Your task to perform on an android device: Do I have any events tomorrow? Image 0: 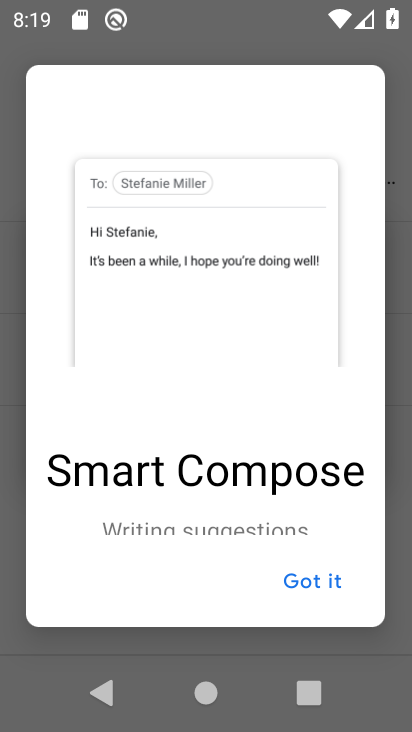
Step 0: press home button
Your task to perform on an android device: Do I have any events tomorrow? Image 1: 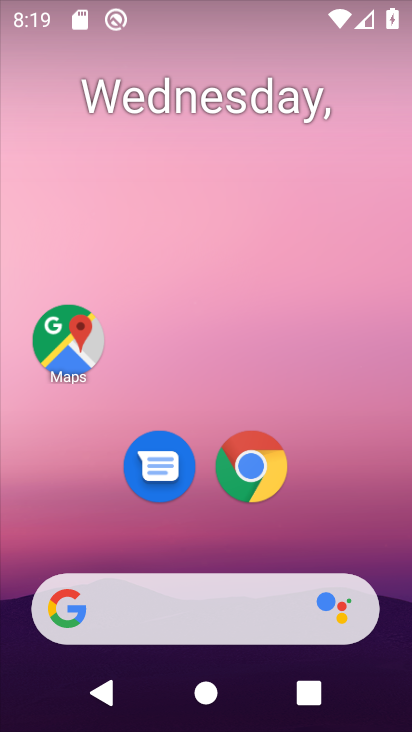
Step 1: drag from (237, 721) to (221, 72)
Your task to perform on an android device: Do I have any events tomorrow? Image 2: 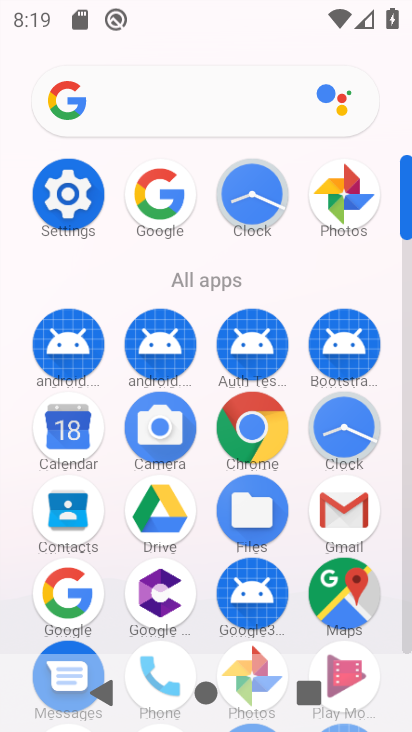
Step 2: click (51, 427)
Your task to perform on an android device: Do I have any events tomorrow? Image 3: 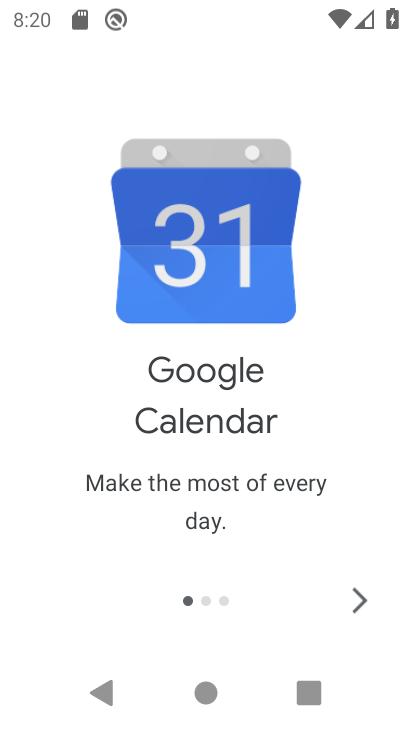
Step 3: click (364, 596)
Your task to perform on an android device: Do I have any events tomorrow? Image 4: 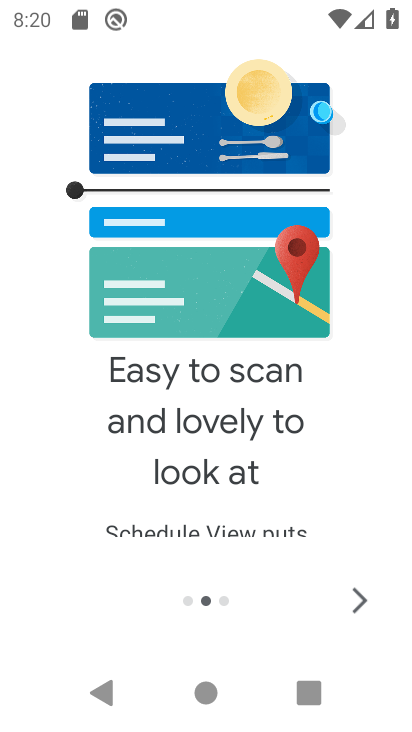
Step 4: click (360, 595)
Your task to perform on an android device: Do I have any events tomorrow? Image 5: 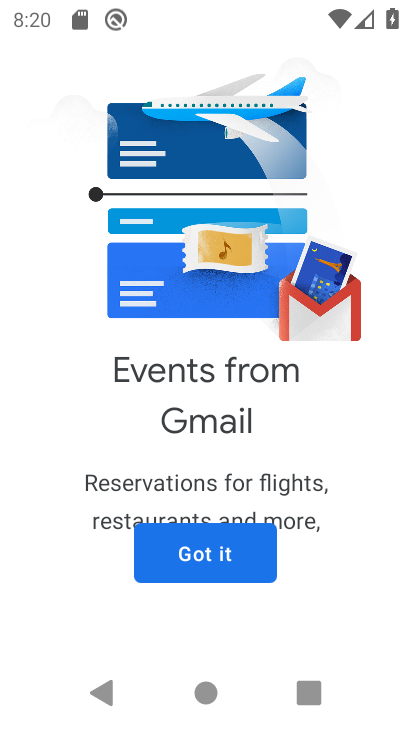
Step 5: click (235, 547)
Your task to perform on an android device: Do I have any events tomorrow? Image 6: 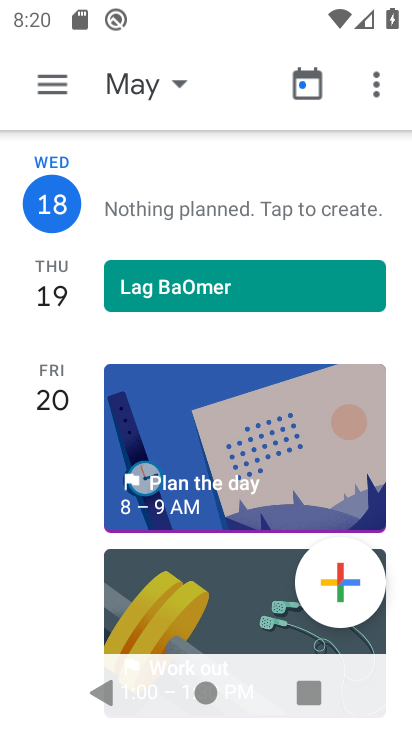
Step 6: click (62, 82)
Your task to perform on an android device: Do I have any events tomorrow? Image 7: 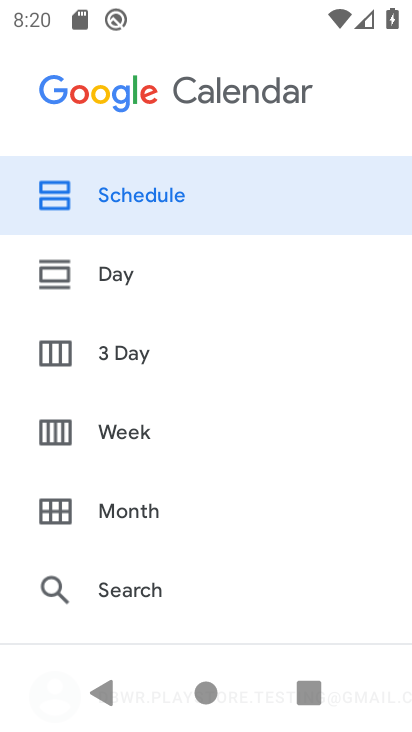
Step 7: drag from (109, 584) to (111, 218)
Your task to perform on an android device: Do I have any events tomorrow? Image 8: 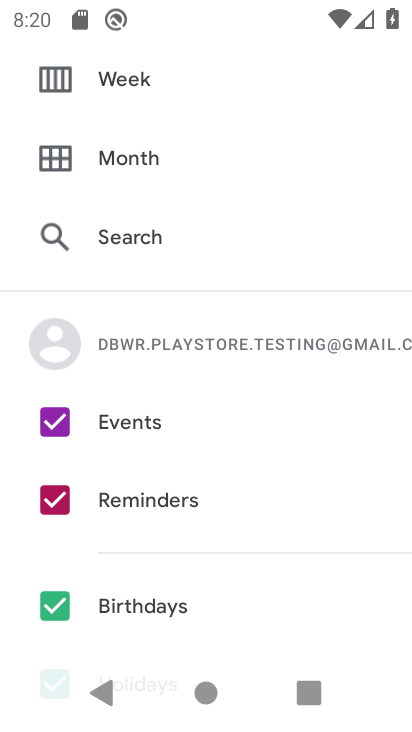
Step 8: drag from (115, 586) to (117, 282)
Your task to perform on an android device: Do I have any events tomorrow? Image 9: 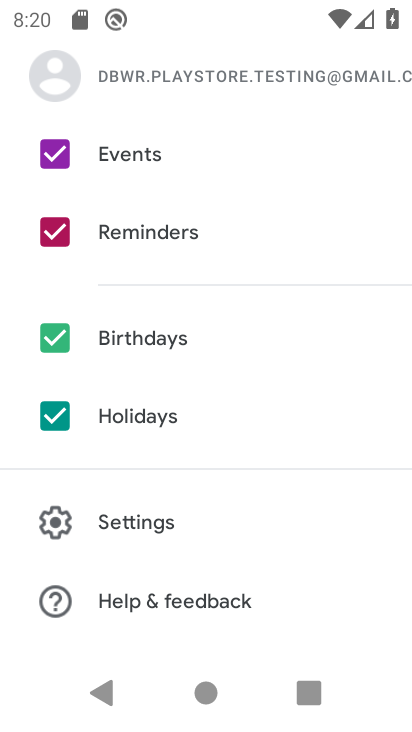
Step 9: click (55, 418)
Your task to perform on an android device: Do I have any events tomorrow? Image 10: 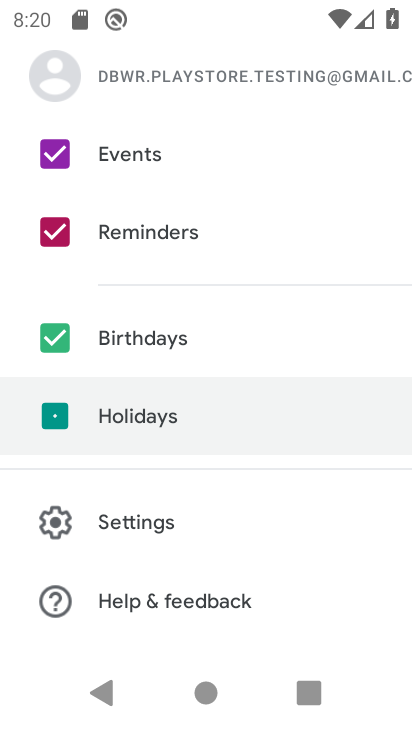
Step 10: click (56, 332)
Your task to perform on an android device: Do I have any events tomorrow? Image 11: 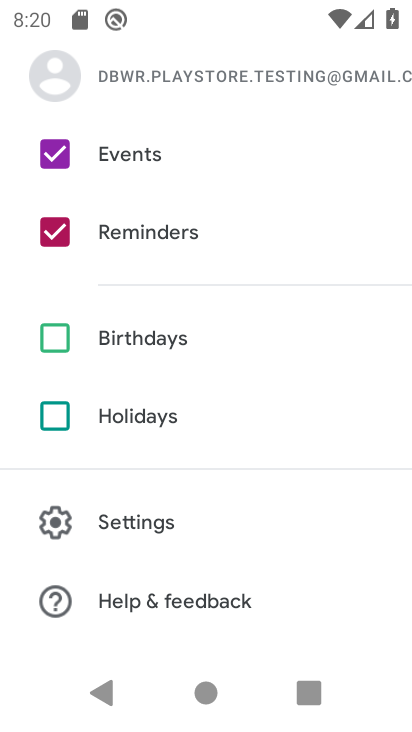
Step 11: click (55, 233)
Your task to perform on an android device: Do I have any events tomorrow? Image 12: 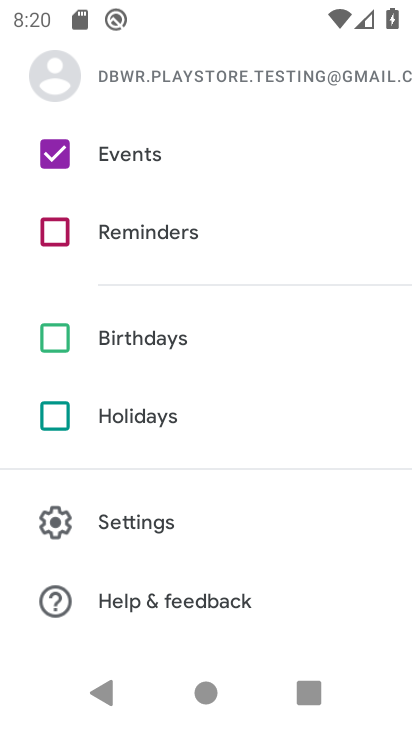
Step 12: drag from (274, 176) to (277, 501)
Your task to perform on an android device: Do I have any events tomorrow? Image 13: 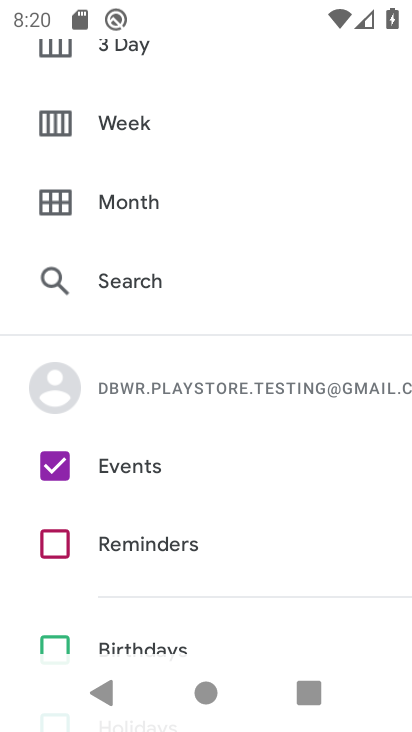
Step 13: drag from (264, 158) to (272, 510)
Your task to perform on an android device: Do I have any events tomorrow? Image 14: 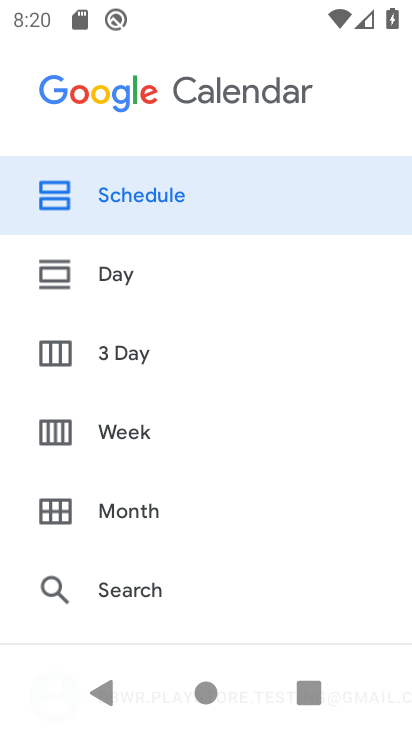
Step 14: click (162, 196)
Your task to perform on an android device: Do I have any events tomorrow? Image 15: 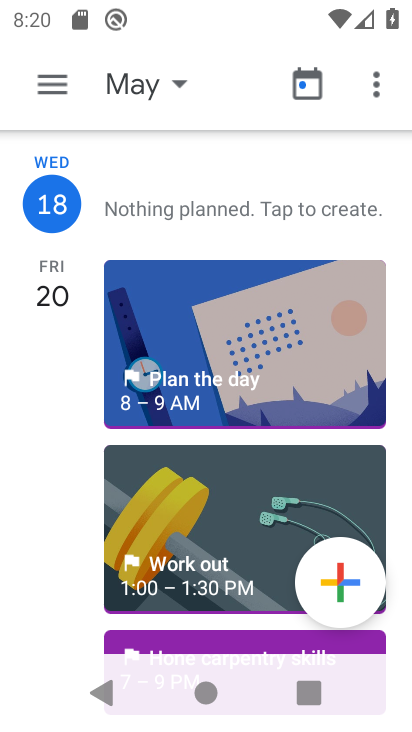
Step 15: click (140, 87)
Your task to perform on an android device: Do I have any events tomorrow? Image 16: 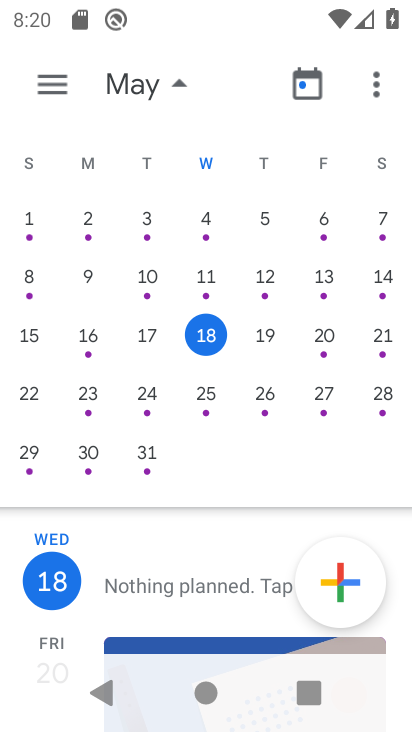
Step 16: click (265, 334)
Your task to perform on an android device: Do I have any events tomorrow? Image 17: 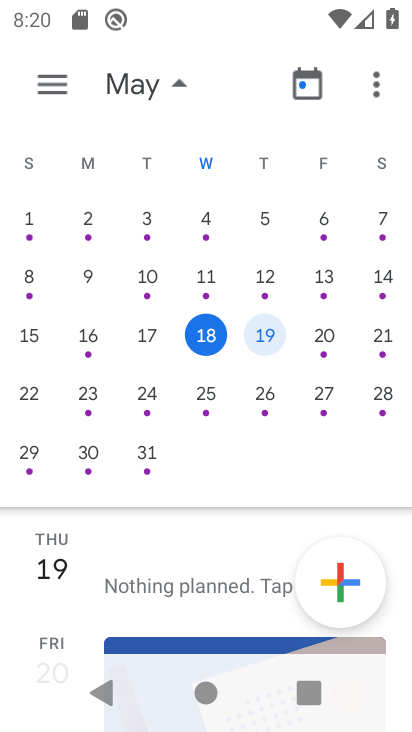
Step 17: click (177, 76)
Your task to perform on an android device: Do I have any events tomorrow? Image 18: 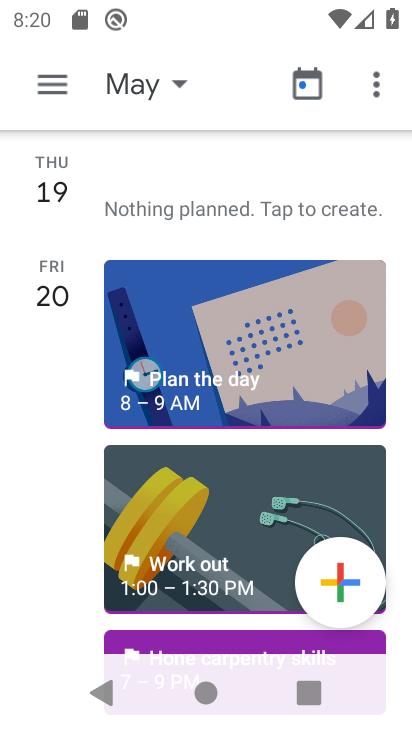
Step 18: task complete